Your task to perform on an android device: empty trash in the gmail app Image 0: 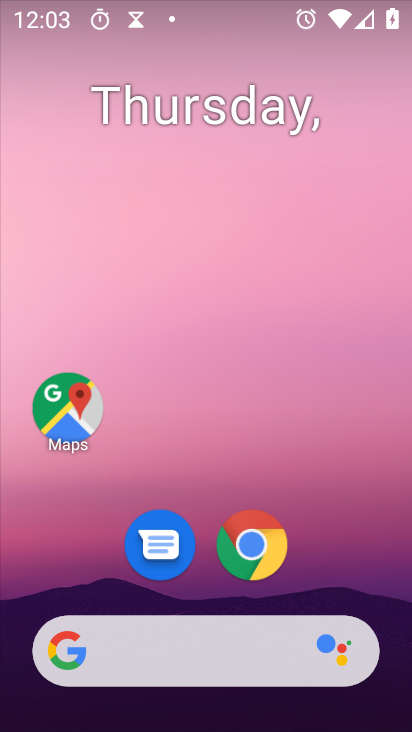
Step 0: press home button
Your task to perform on an android device: empty trash in the gmail app Image 1: 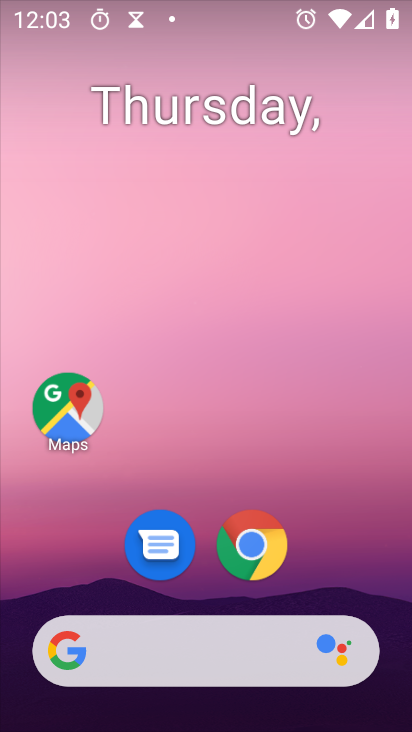
Step 1: drag from (211, 584) to (261, 70)
Your task to perform on an android device: empty trash in the gmail app Image 2: 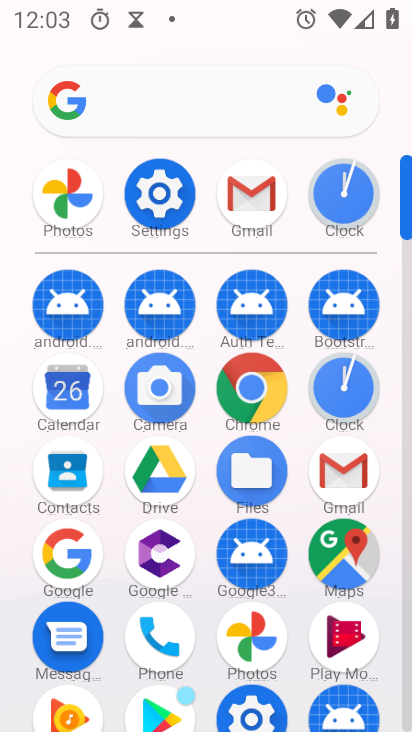
Step 2: click (247, 194)
Your task to perform on an android device: empty trash in the gmail app Image 3: 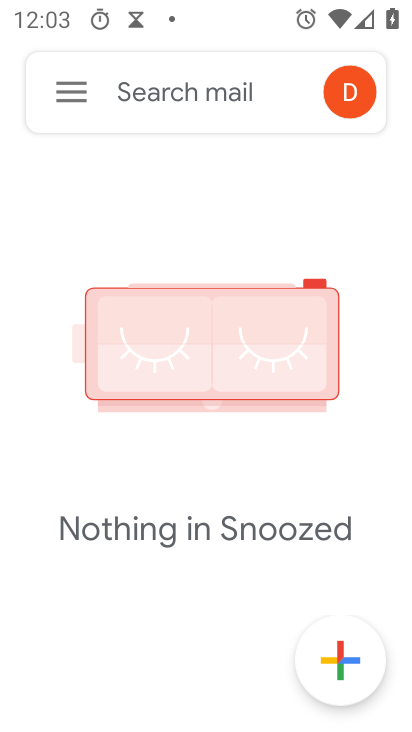
Step 3: click (67, 89)
Your task to perform on an android device: empty trash in the gmail app Image 4: 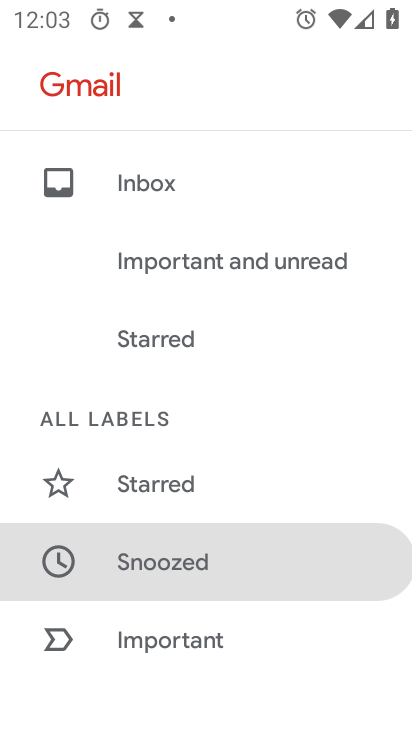
Step 4: drag from (246, 615) to (304, 77)
Your task to perform on an android device: empty trash in the gmail app Image 5: 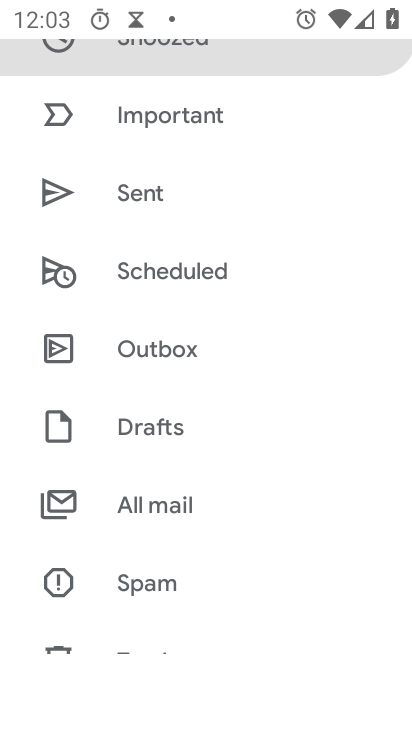
Step 5: drag from (197, 624) to (274, 127)
Your task to perform on an android device: empty trash in the gmail app Image 6: 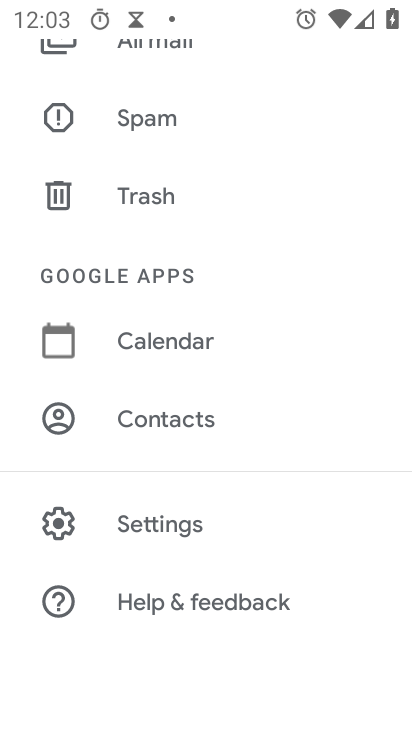
Step 6: click (158, 195)
Your task to perform on an android device: empty trash in the gmail app Image 7: 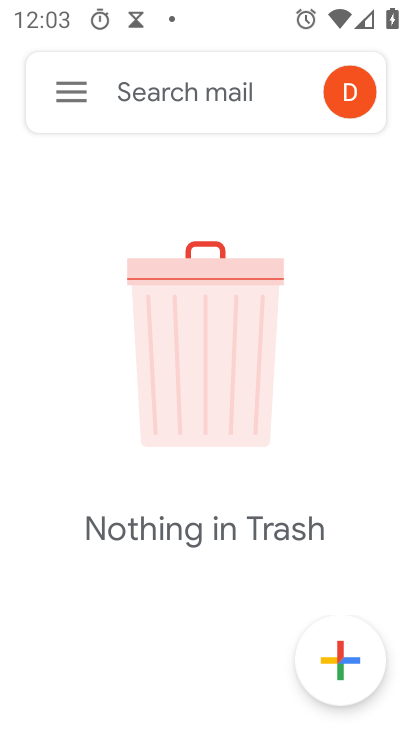
Step 7: task complete